Your task to perform on an android device: When is my next appointment? Image 0: 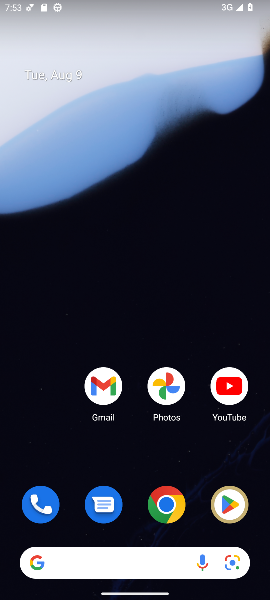
Step 0: drag from (70, 510) to (70, 151)
Your task to perform on an android device: When is my next appointment? Image 1: 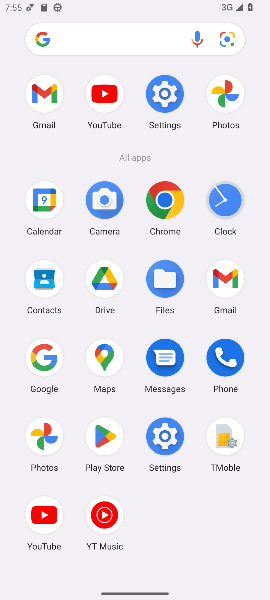
Step 1: click (48, 223)
Your task to perform on an android device: When is my next appointment? Image 2: 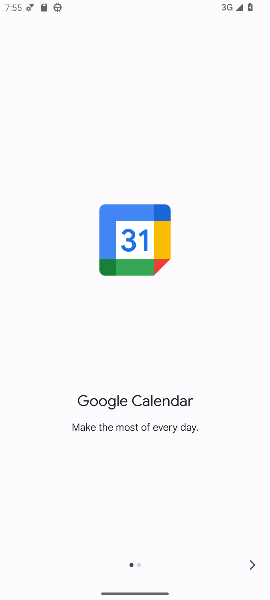
Step 2: click (254, 570)
Your task to perform on an android device: When is my next appointment? Image 3: 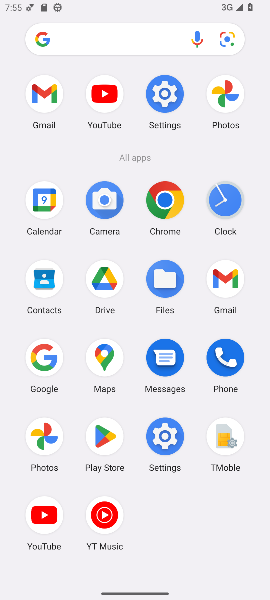
Step 3: click (39, 217)
Your task to perform on an android device: When is my next appointment? Image 4: 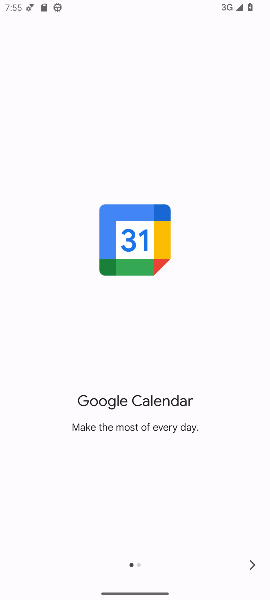
Step 4: click (258, 568)
Your task to perform on an android device: When is my next appointment? Image 5: 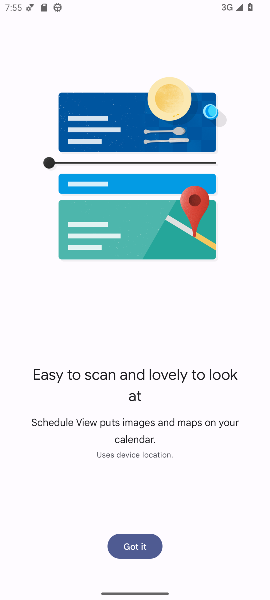
Step 5: click (143, 542)
Your task to perform on an android device: When is my next appointment? Image 6: 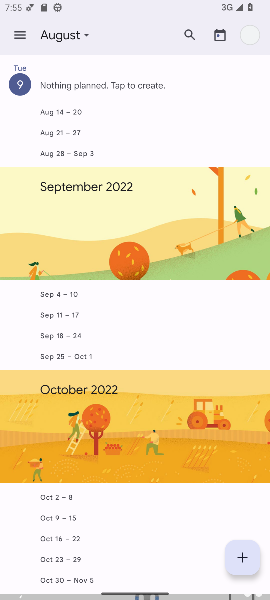
Step 6: task complete